Your task to perform on an android device: What's the weather today? Image 0: 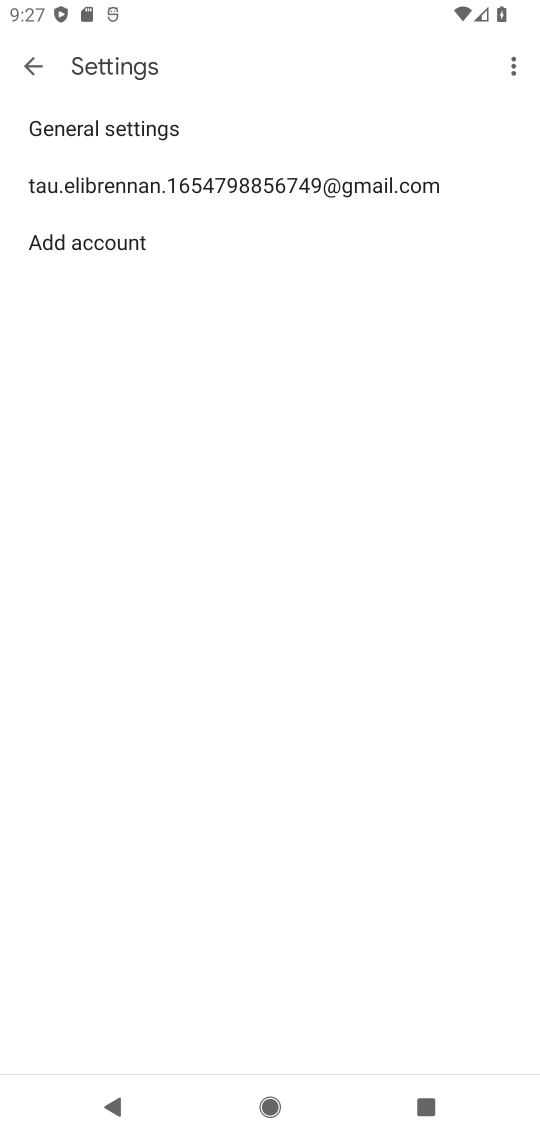
Step 0: press back button
Your task to perform on an android device: What's the weather today? Image 1: 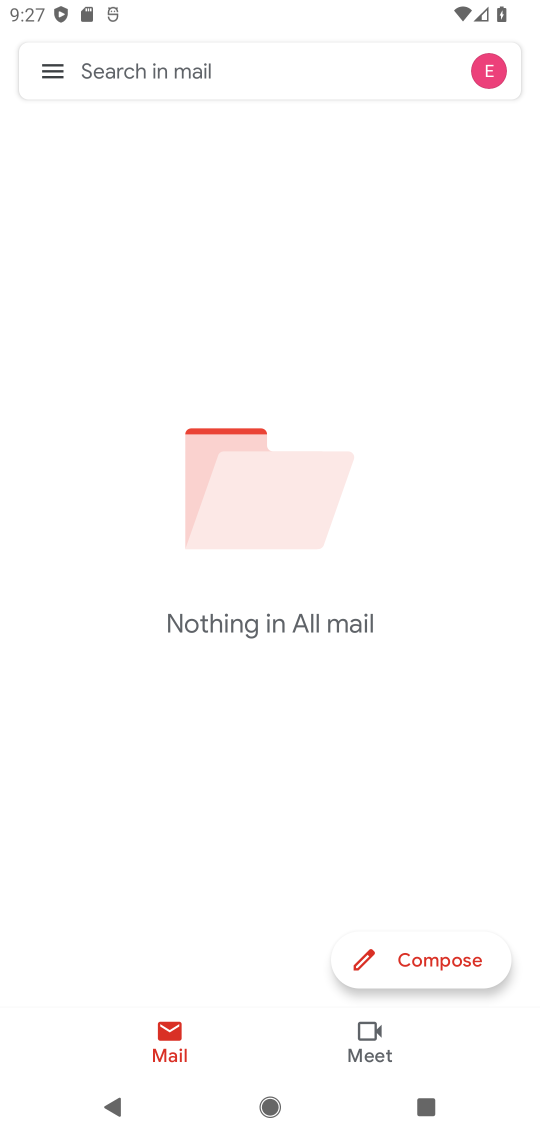
Step 1: press back button
Your task to perform on an android device: What's the weather today? Image 2: 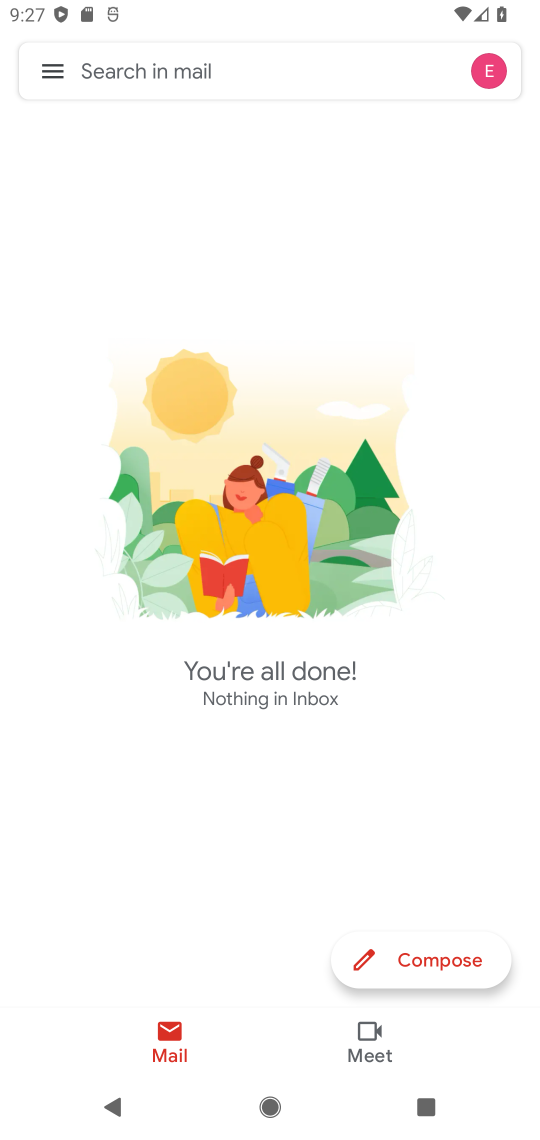
Step 2: press back button
Your task to perform on an android device: What's the weather today? Image 3: 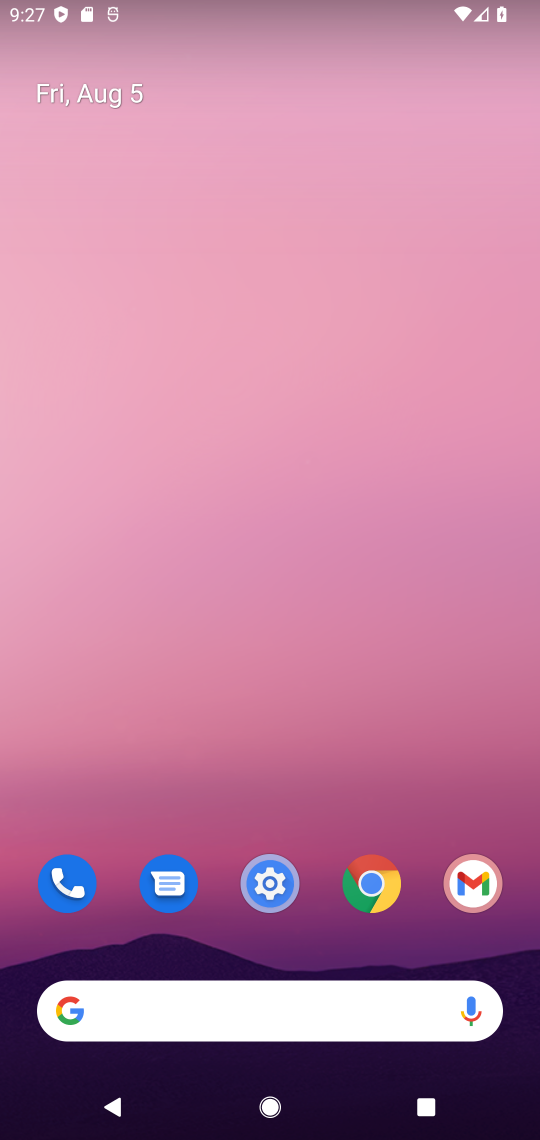
Step 3: click (209, 1014)
Your task to perform on an android device: What's the weather today? Image 4: 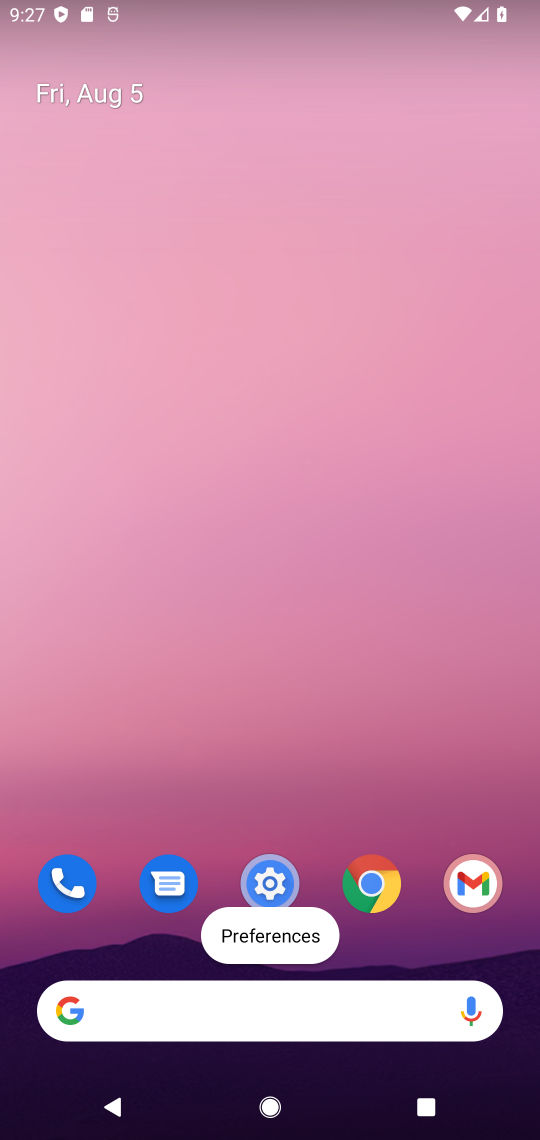
Step 4: click (212, 1014)
Your task to perform on an android device: What's the weather today? Image 5: 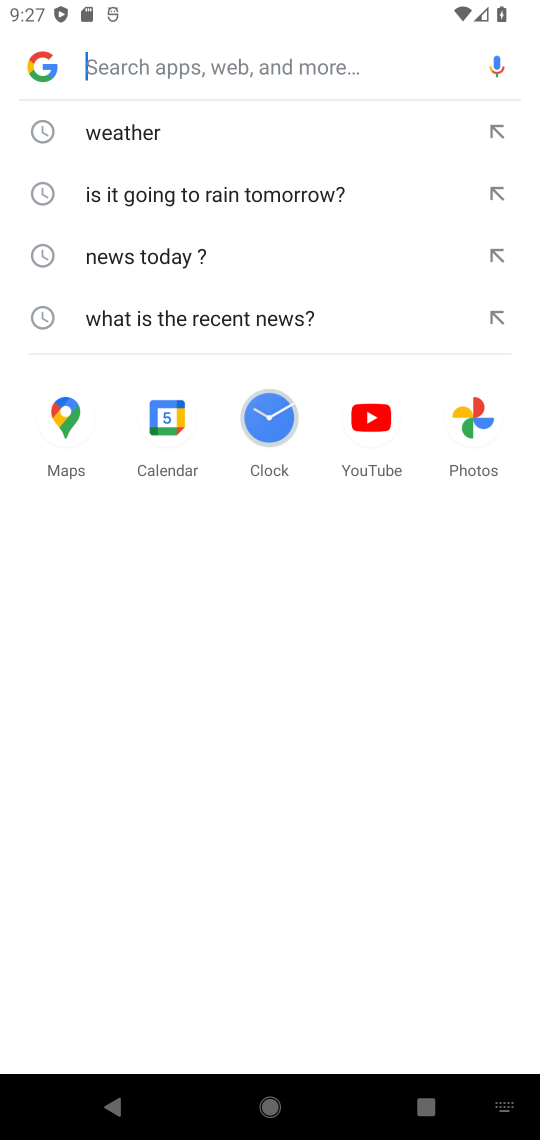
Step 5: click (136, 126)
Your task to perform on an android device: What's the weather today? Image 6: 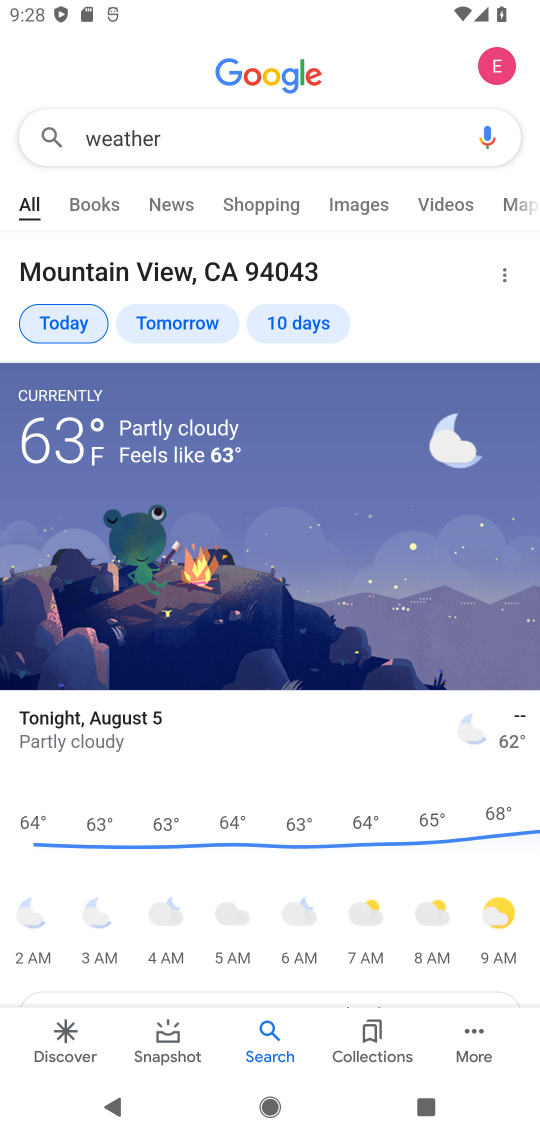
Step 6: task complete